Your task to perform on an android device: turn on showing notifications on the lock screen Image 0: 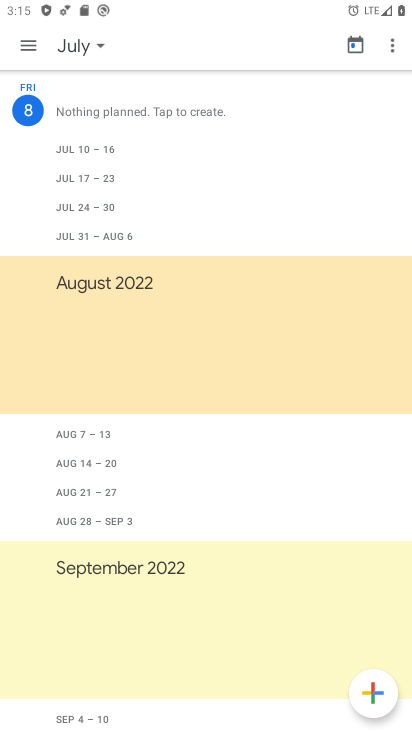
Step 0: press home button
Your task to perform on an android device: turn on showing notifications on the lock screen Image 1: 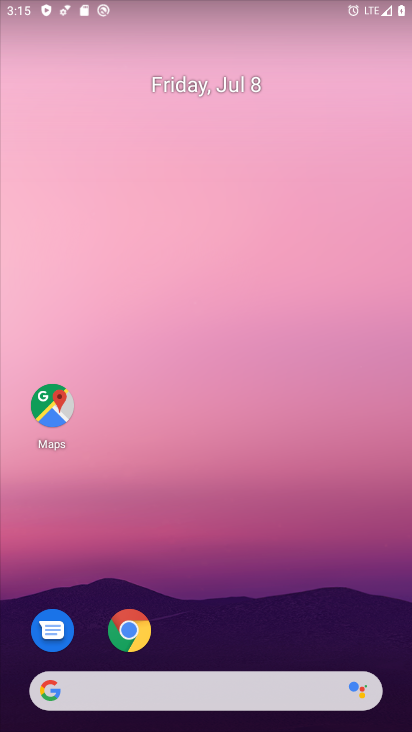
Step 1: drag from (254, 543) to (247, 335)
Your task to perform on an android device: turn on showing notifications on the lock screen Image 2: 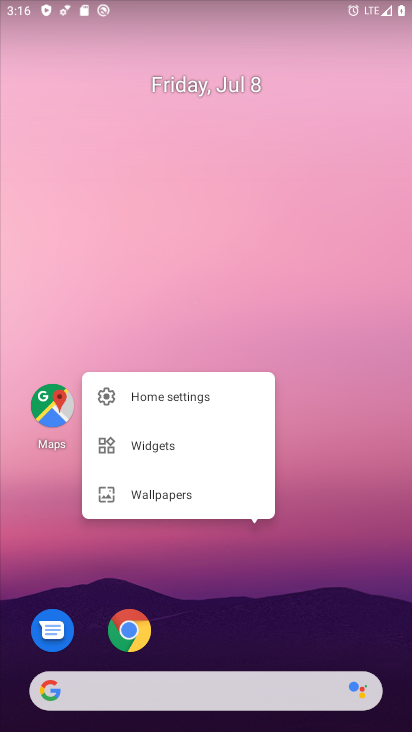
Step 2: drag from (323, 617) to (329, 76)
Your task to perform on an android device: turn on showing notifications on the lock screen Image 3: 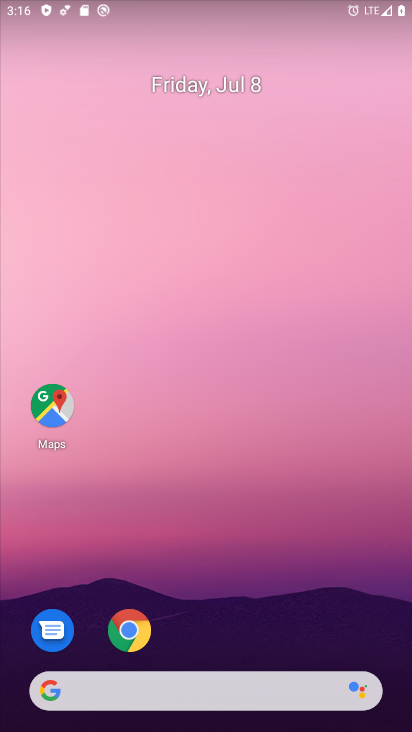
Step 3: drag from (263, 505) to (250, 195)
Your task to perform on an android device: turn on showing notifications on the lock screen Image 4: 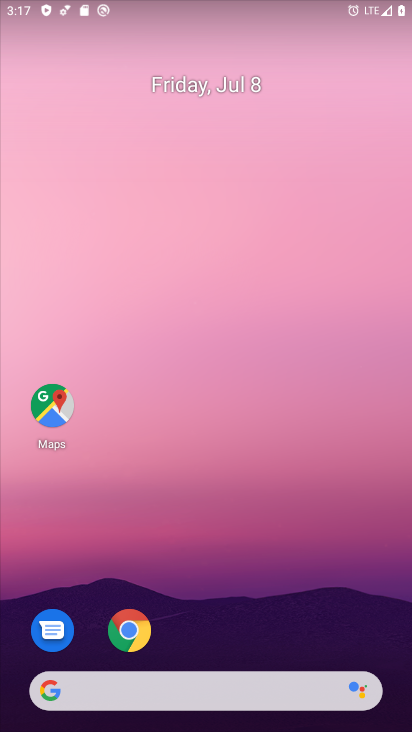
Step 4: drag from (258, 511) to (229, 246)
Your task to perform on an android device: turn on showing notifications on the lock screen Image 5: 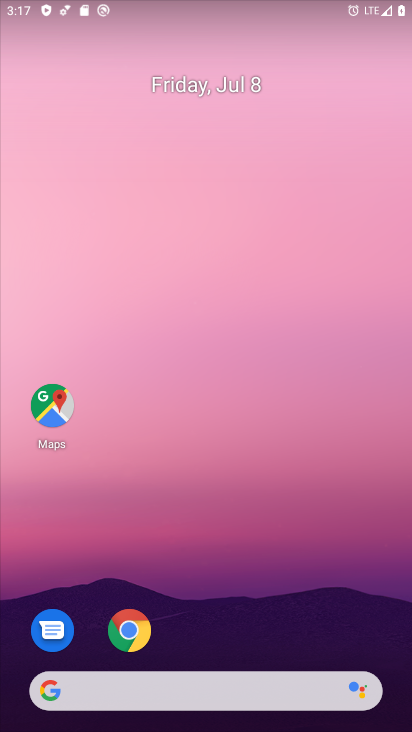
Step 5: drag from (276, 486) to (234, 210)
Your task to perform on an android device: turn on showing notifications on the lock screen Image 6: 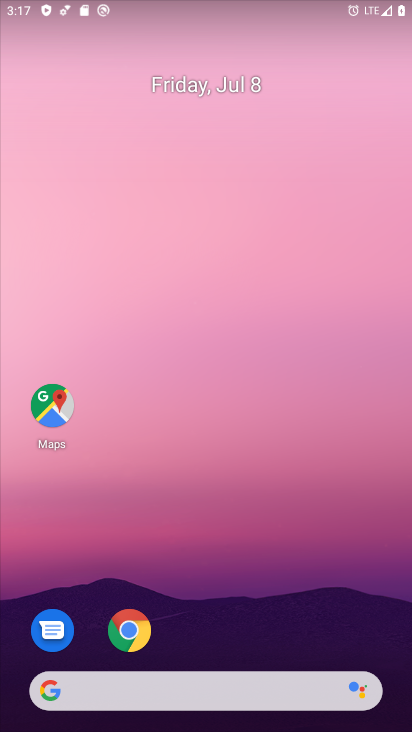
Step 6: drag from (285, 453) to (249, 33)
Your task to perform on an android device: turn on showing notifications on the lock screen Image 7: 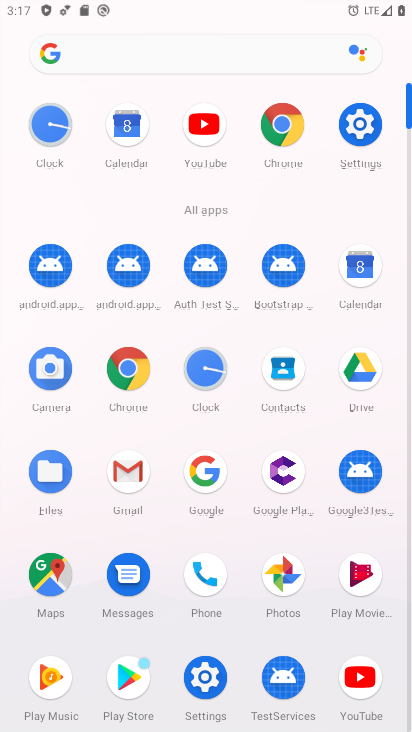
Step 7: click (360, 136)
Your task to perform on an android device: turn on showing notifications on the lock screen Image 8: 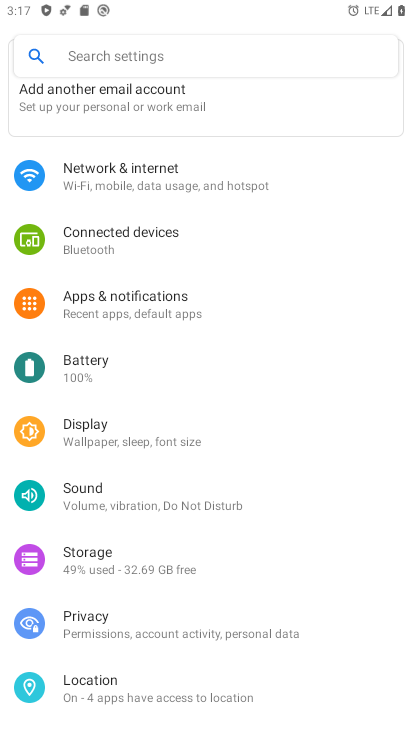
Step 8: click (126, 295)
Your task to perform on an android device: turn on showing notifications on the lock screen Image 9: 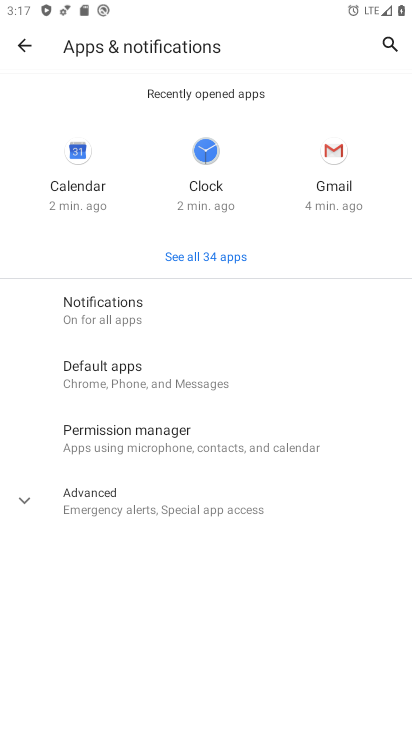
Step 9: click (127, 313)
Your task to perform on an android device: turn on showing notifications on the lock screen Image 10: 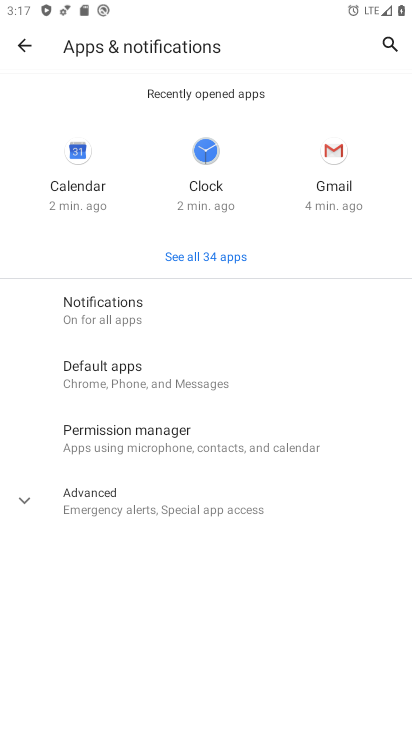
Step 10: click (127, 313)
Your task to perform on an android device: turn on showing notifications on the lock screen Image 11: 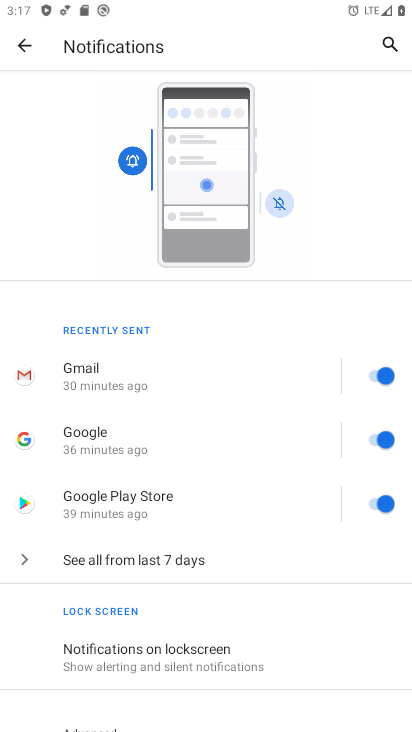
Step 11: task complete